Your task to perform on an android device: open app "Speedtest by Ookla" (install if not already installed) Image 0: 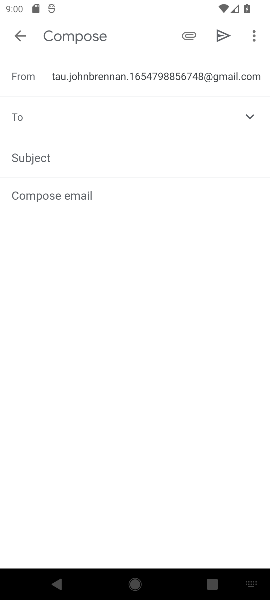
Step 0: press home button
Your task to perform on an android device: open app "Speedtest by Ookla" (install if not already installed) Image 1: 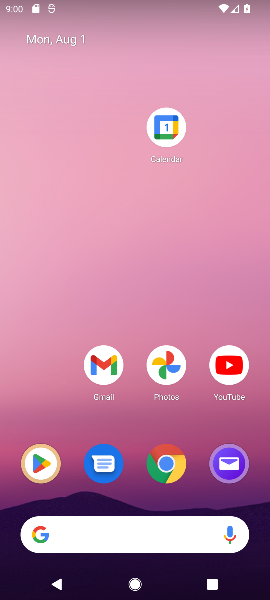
Step 1: click (36, 450)
Your task to perform on an android device: open app "Speedtest by Ookla" (install if not already installed) Image 2: 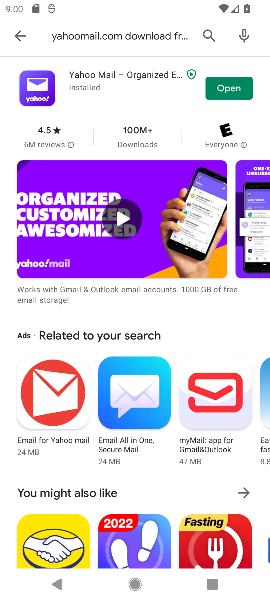
Step 2: click (212, 33)
Your task to perform on an android device: open app "Speedtest by Ookla" (install if not already installed) Image 3: 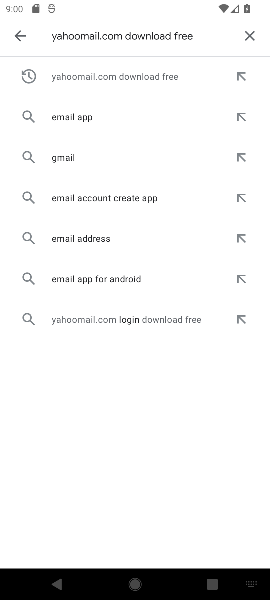
Step 3: click (257, 33)
Your task to perform on an android device: open app "Speedtest by Ookla" (install if not already installed) Image 4: 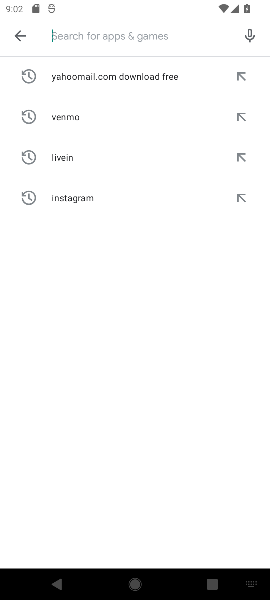
Step 4: press home button
Your task to perform on an android device: open app "Speedtest by Ookla" (install if not already installed) Image 5: 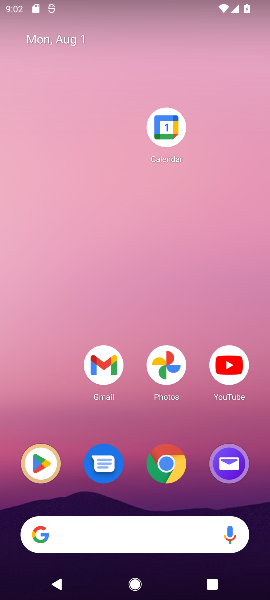
Step 5: click (41, 467)
Your task to perform on an android device: open app "Speedtest by Ookla" (install if not already installed) Image 6: 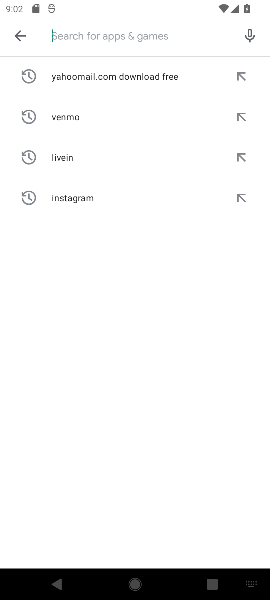
Step 6: type "speedtest okla"
Your task to perform on an android device: open app "Speedtest by Ookla" (install if not already installed) Image 7: 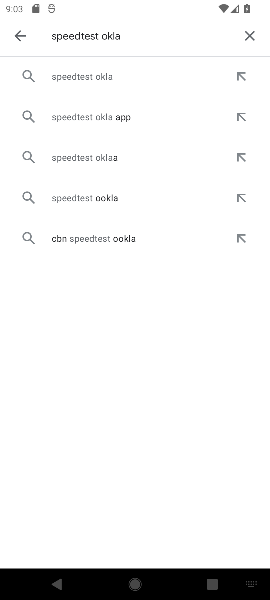
Step 7: click (89, 76)
Your task to perform on an android device: open app "Speedtest by Ookla" (install if not already installed) Image 8: 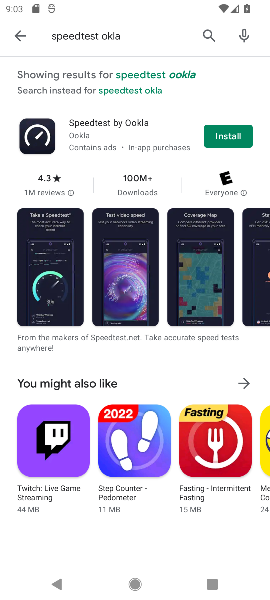
Step 8: click (134, 81)
Your task to perform on an android device: open app "Speedtest by Ookla" (install if not already installed) Image 9: 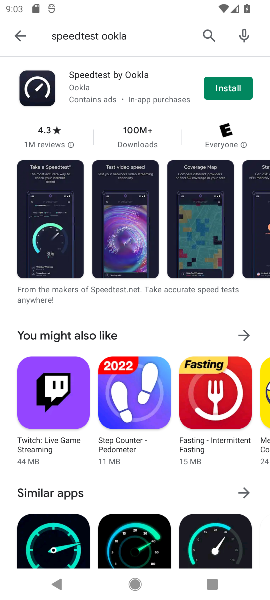
Step 9: click (231, 93)
Your task to perform on an android device: open app "Speedtest by Ookla" (install if not already installed) Image 10: 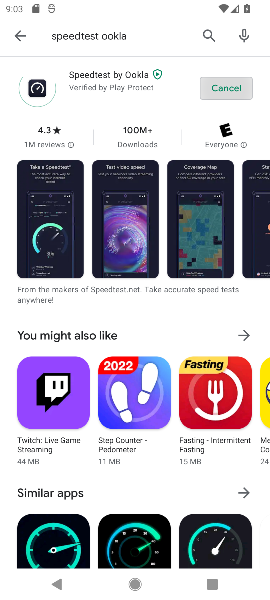
Step 10: task complete